Your task to perform on an android device: Open Youtube and go to "Your channel" Image 0: 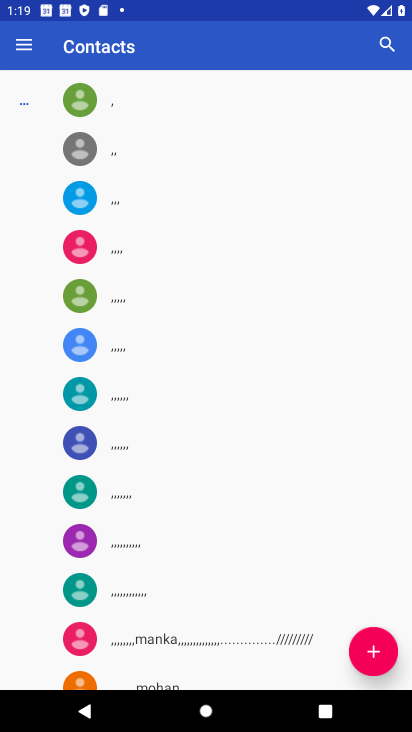
Step 0: task complete